Your task to perform on an android device: open a bookmark in the chrome app Image 0: 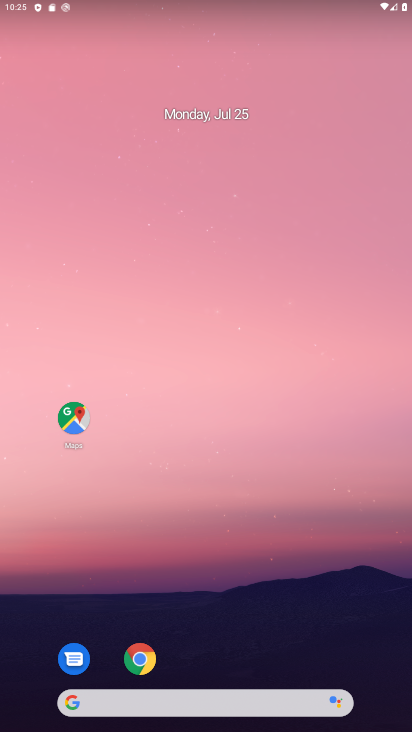
Step 0: drag from (246, 685) to (212, 141)
Your task to perform on an android device: open a bookmark in the chrome app Image 1: 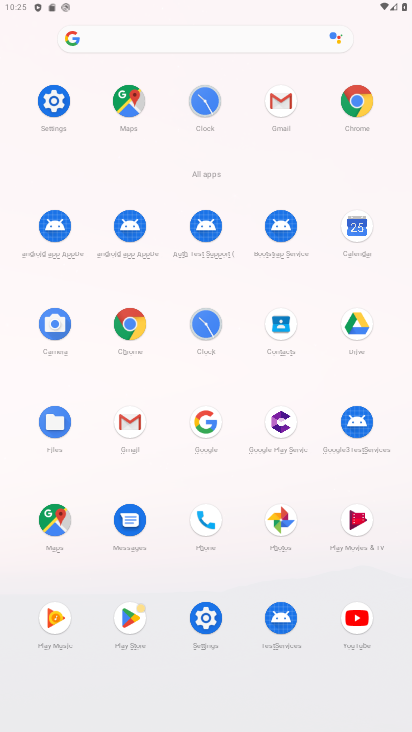
Step 1: click (123, 334)
Your task to perform on an android device: open a bookmark in the chrome app Image 2: 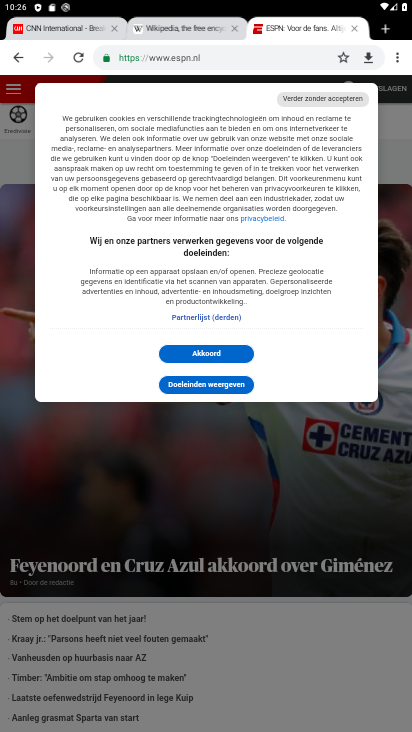
Step 2: click (394, 54)
Your task to perform on an android device: open a bookmark in the chrome app Image 3: 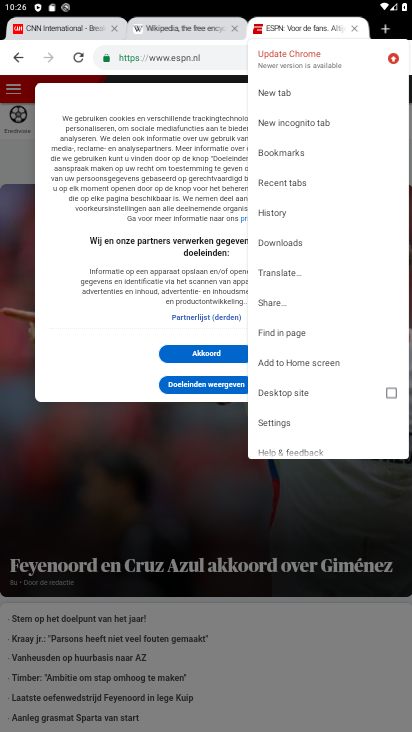
Step 3: click (277, 150)
Your task to perform on an android device: open a bookmark in the chrome app Image 4: 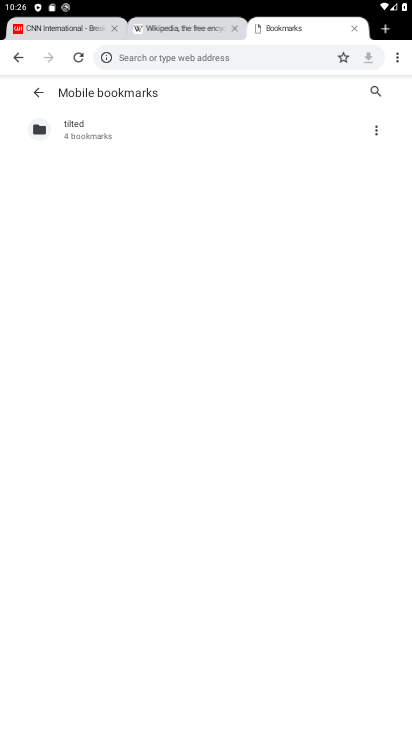
Step 4: task complete